Your task to perform on an android device: Open the stopwatch Image 0: 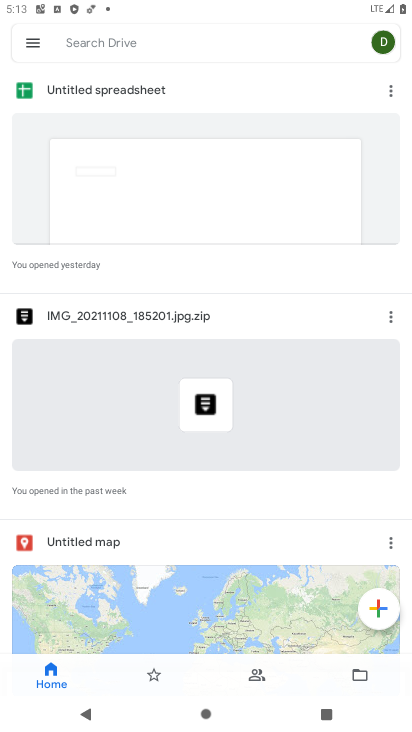
Step 0: press home button
Your task to perform on an android device: Open the stopwatch Image 1: 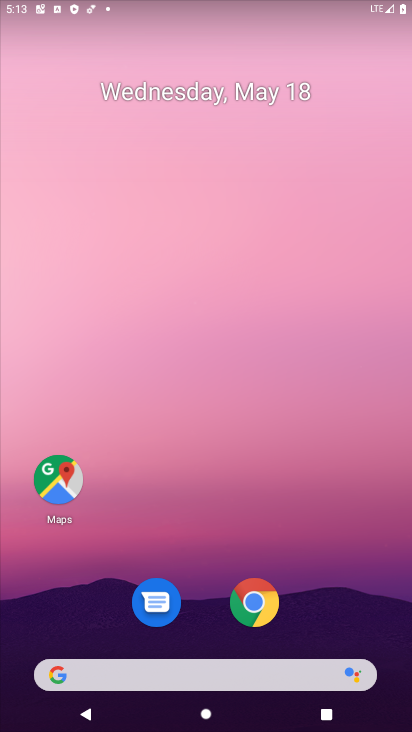
Step 1: drag from (214, 687) to (151, 71)
Your task to perform on an android device: Open the stopwatch Image 2: 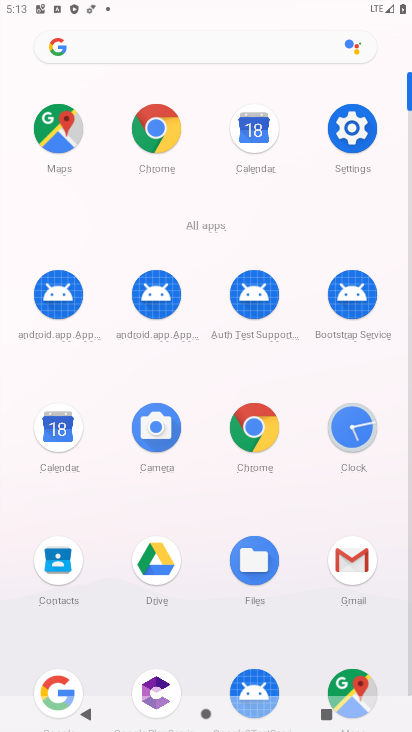
Step 2: click (345, 427)
Your task to perform on an android device: Open the stopwatch Image 3: 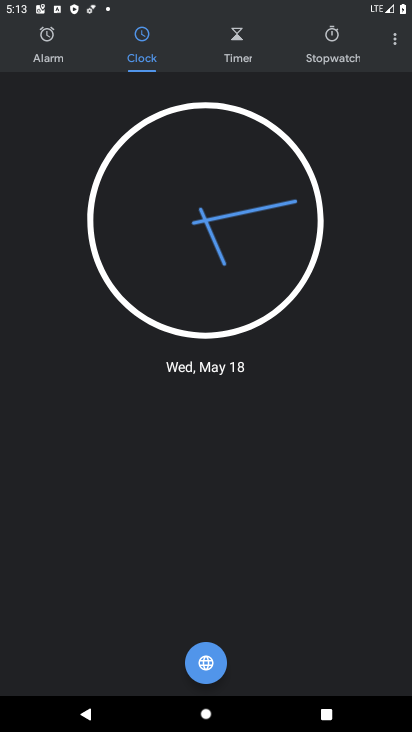
Step 3: click (330, 55)
Your task to perform on an android device: Open the stopwatch Image 4: 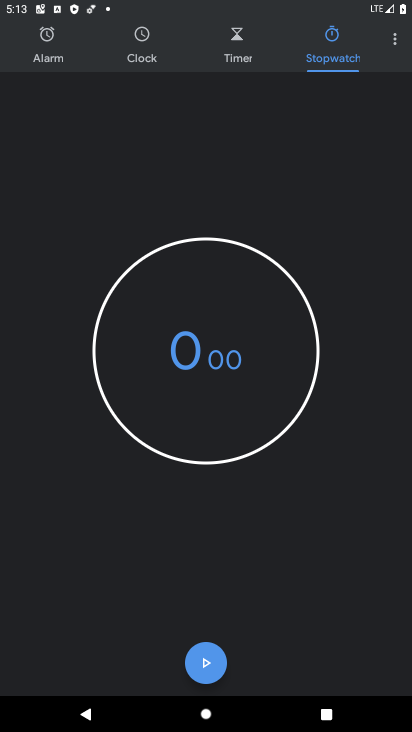
Step 4: task complete